Your task to perform on an android device: Show me popular games on the Play Store Image 0: 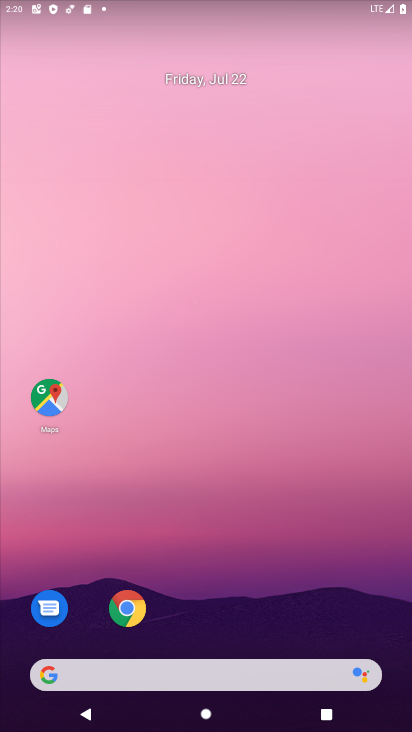
Step 0: drag from (392, 712) to (282, 58)
Your task to perform on an android device: Show me popular games on the Play Store Image 1: 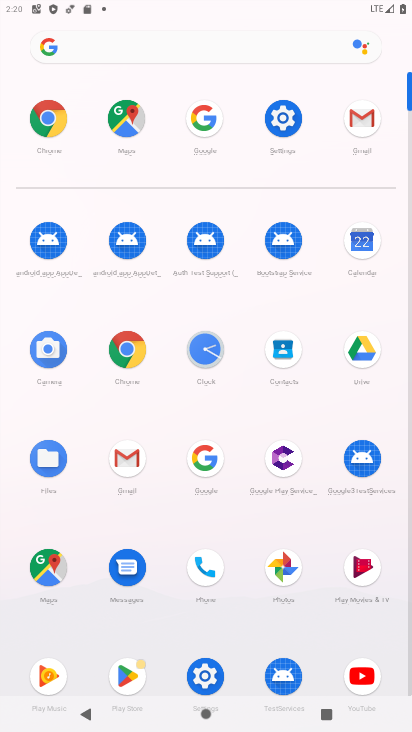
Step 1: click (135, 673)
Your task to perform on an android device: Show me popular games on the Play Store Image 2: 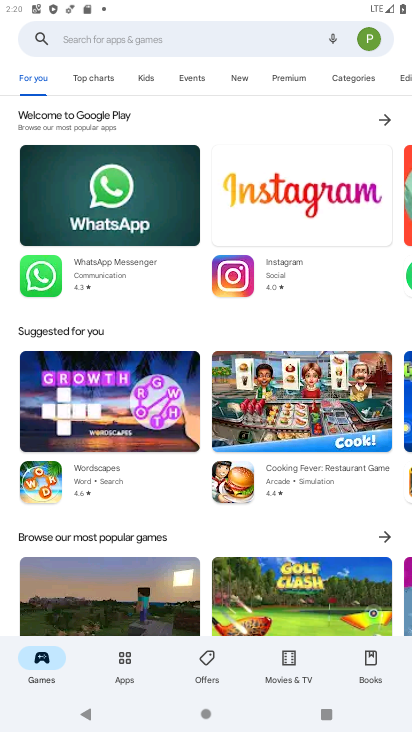
Step 2: click (137, 35)
Your task to perform on an android device: Show me popular games on the Play Store Image 3: 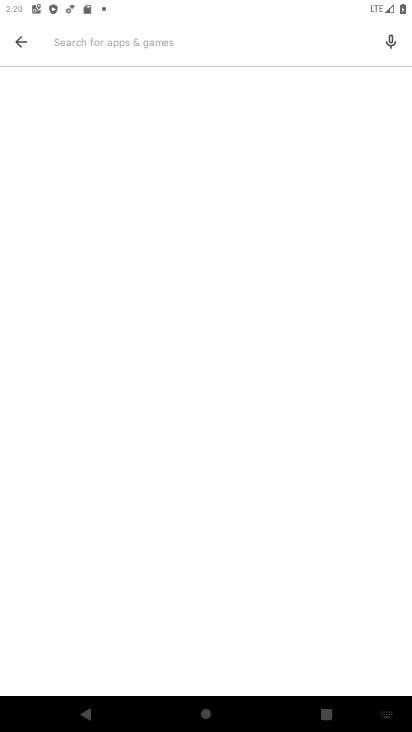
Step 3: type "popular games on the Play Store"
Your task to perform on an android device: Show me popular games on the Play Store Image 4: 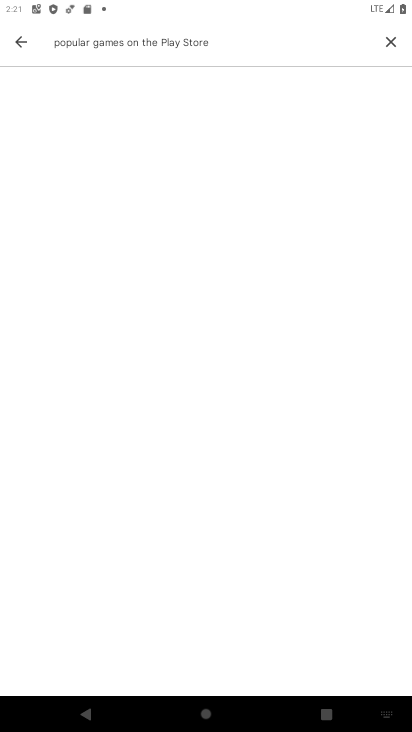
Step 4: task complete